Your task to perform on an android device: Open the stopwatch Image 0: 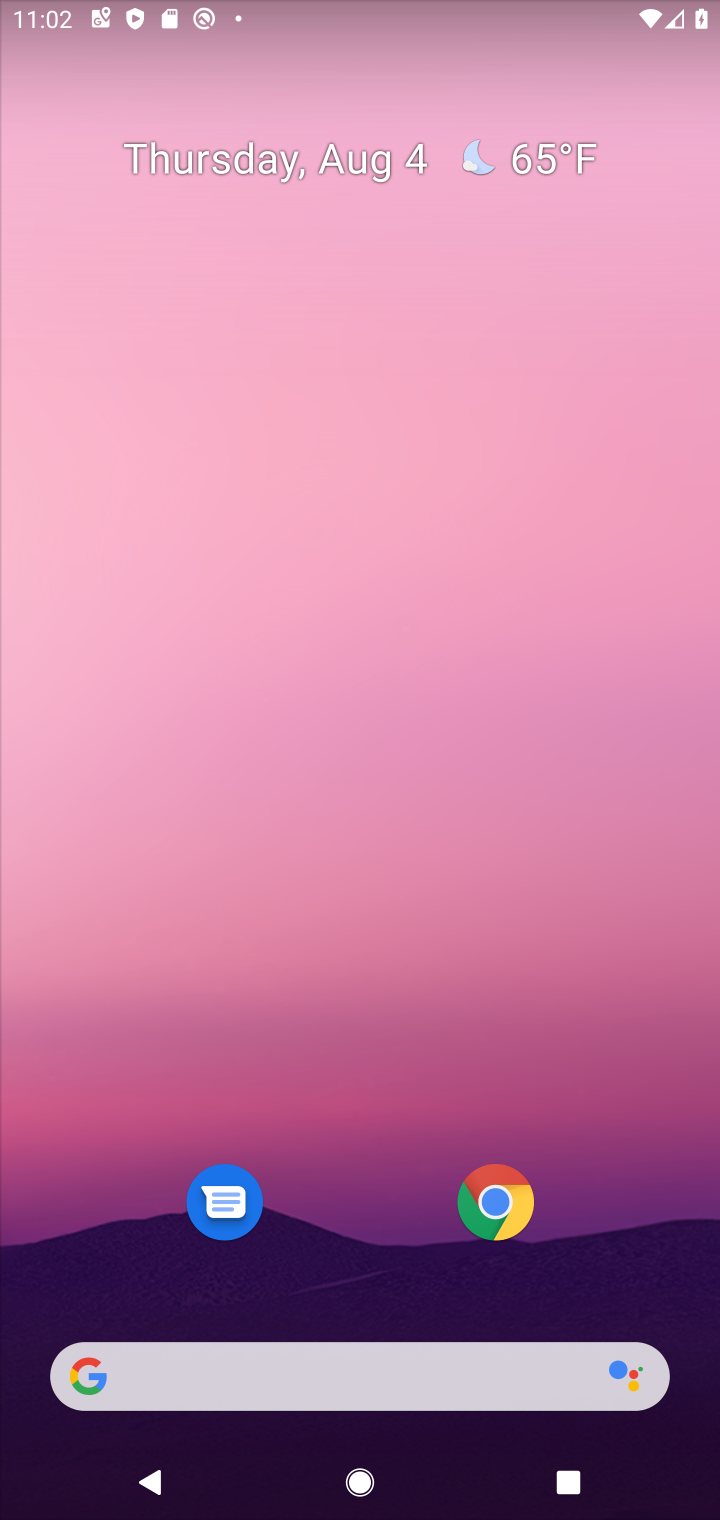
Step 0: drag from (340, 737) to (438, 0)
Your task to perform on an android device: Open the stopwatch Image 1: 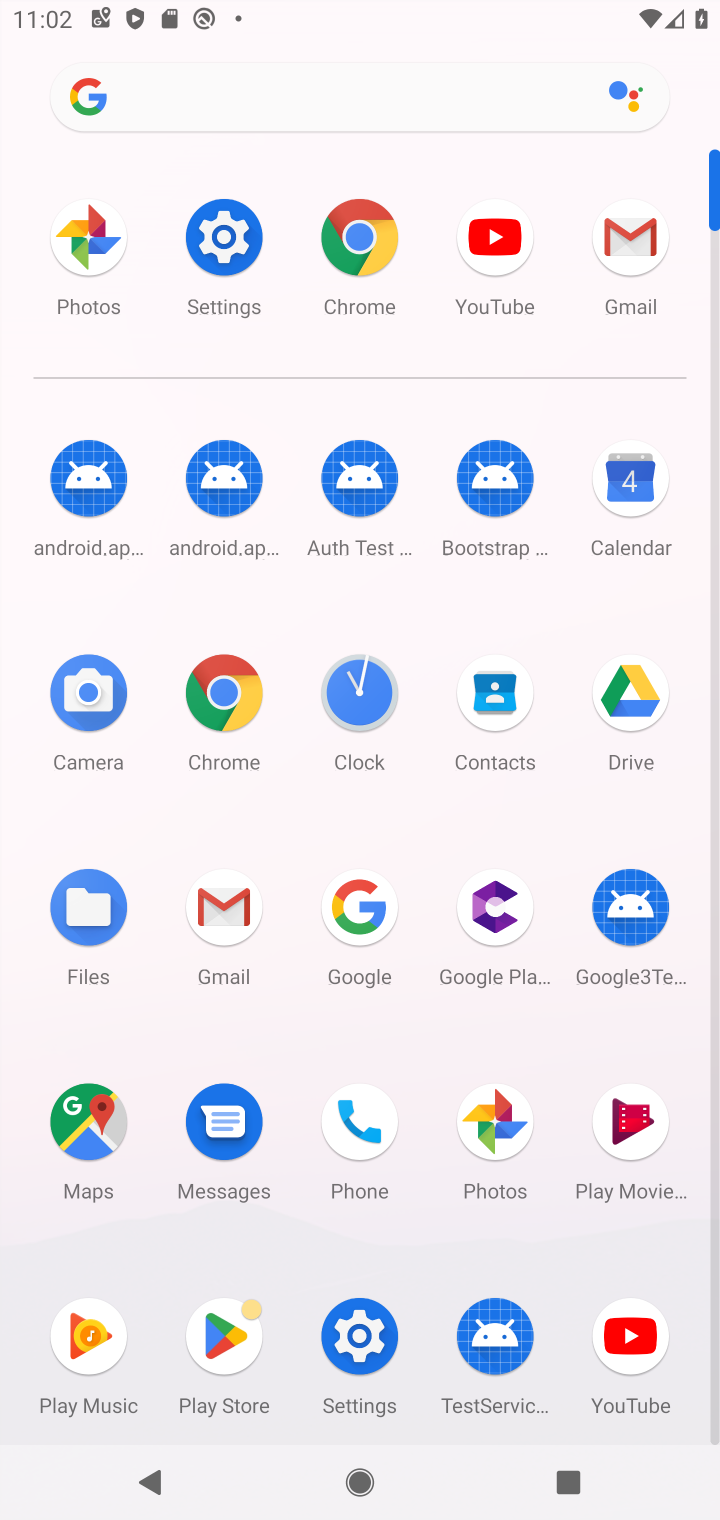
Step 1: click (372, 696)
Your task to perform on an android device: Open the stopwatch Image 2: 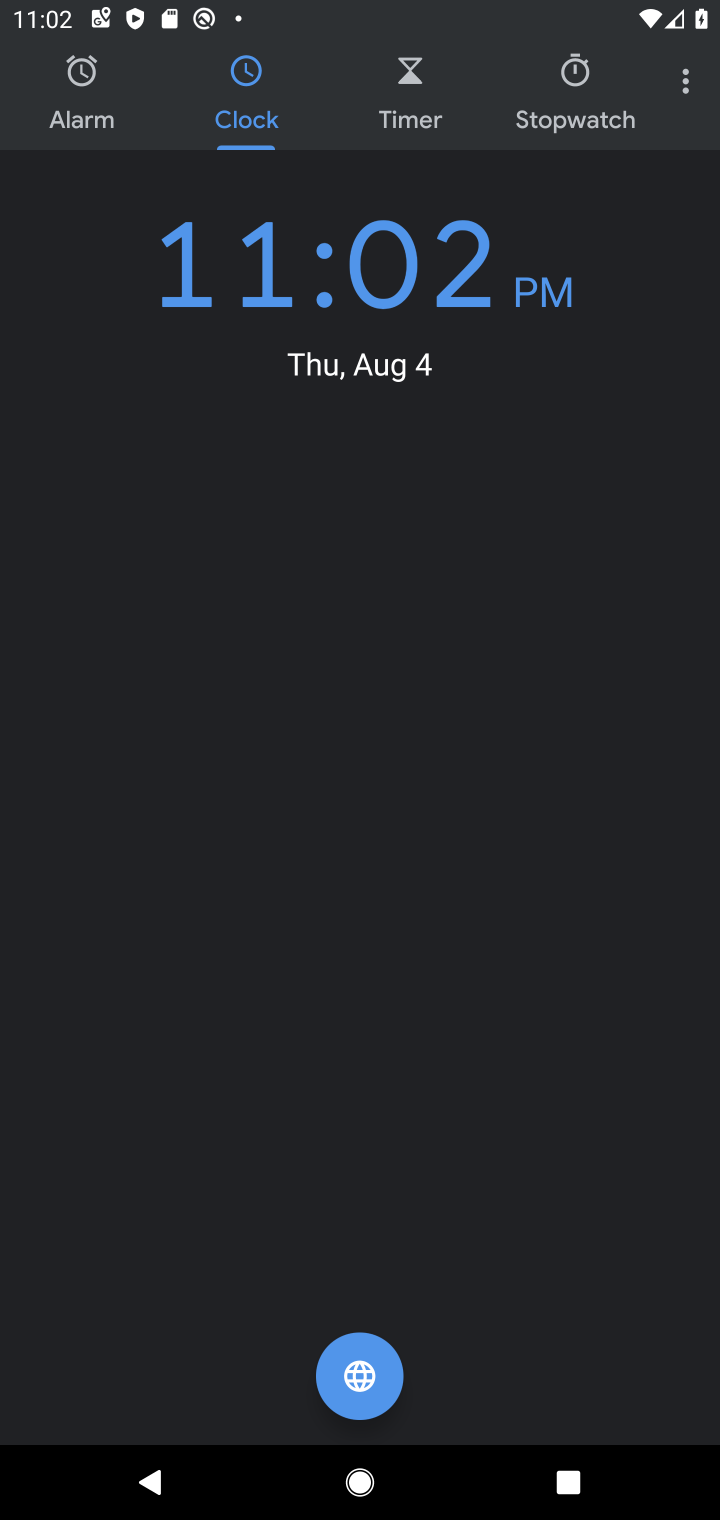
Step 2: click (593, 105)
Your task to perform on an android device: Open the stopwatch Image 3: 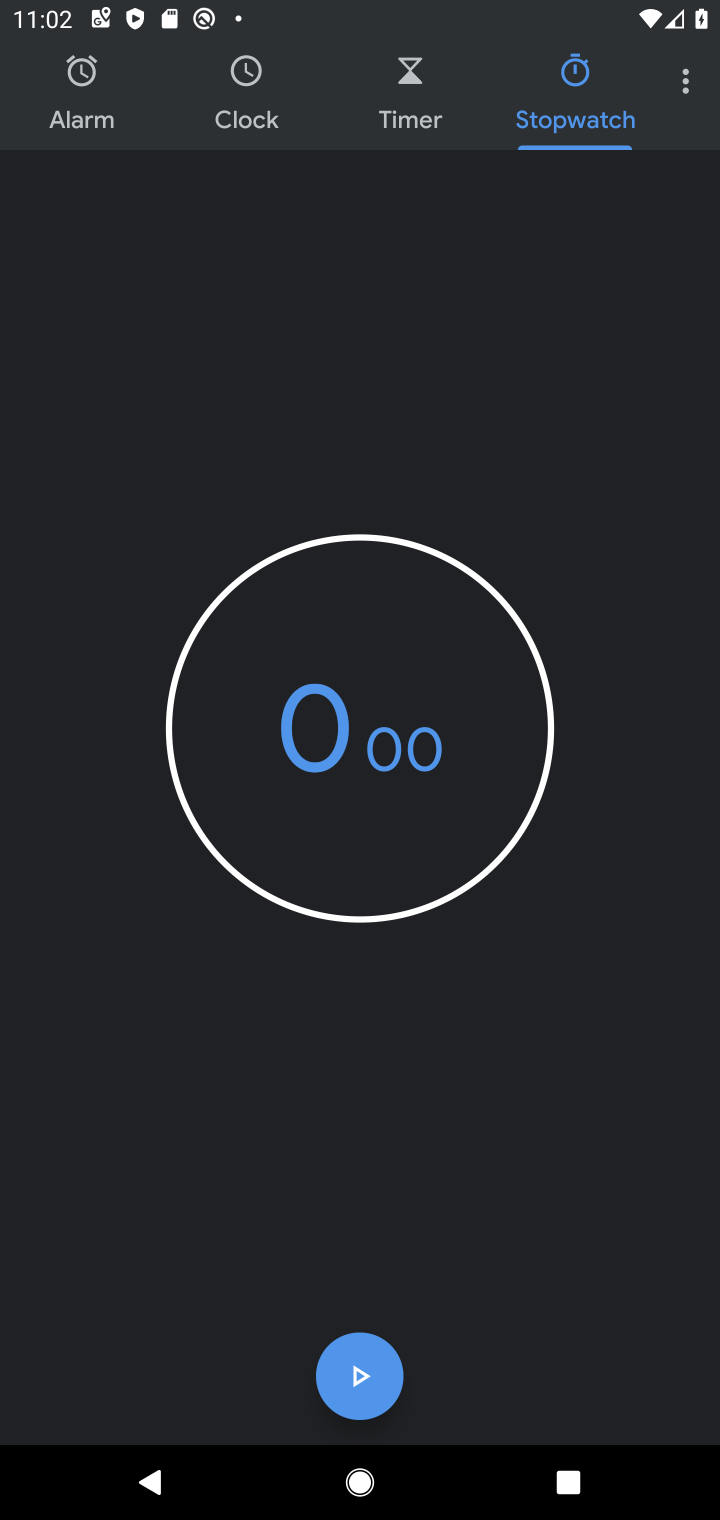
Step 3: task complete